Your task to perform on an android device: Go to Amazon Image 0: 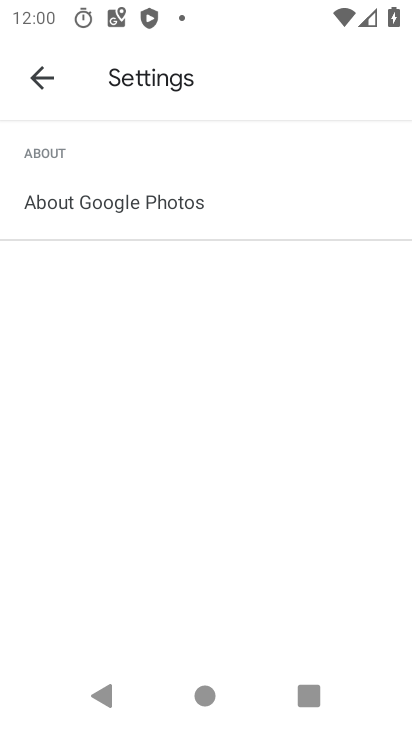
Step 0: press home button
Your task to perform on an android device: Go to Amazon Image 1: 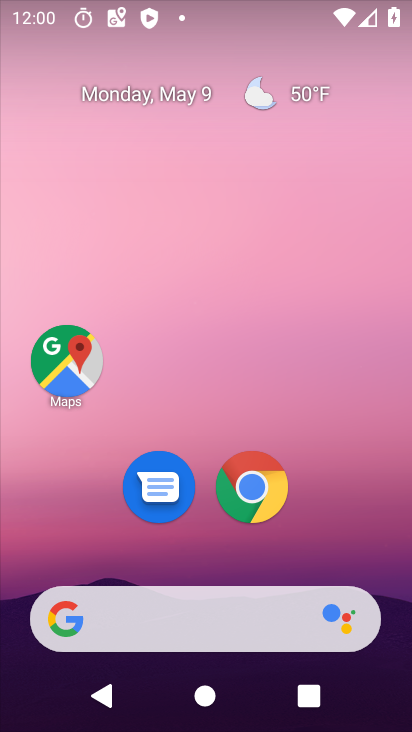
Step 1: click (278, 478)
Your task to perform on an android device: Go to Amazon Image 2: 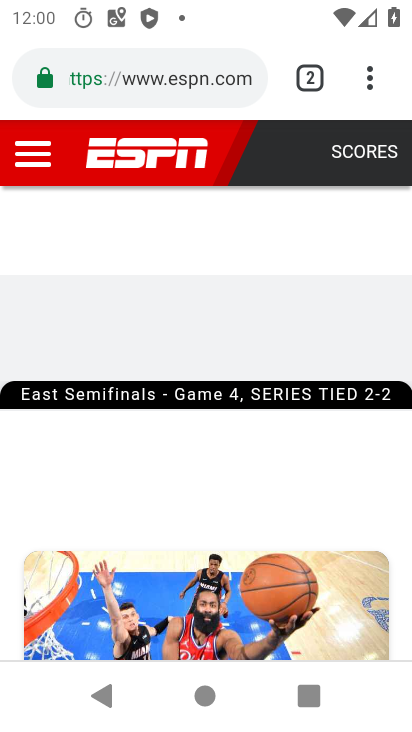
Step 2: click (159, 82)
Your task to perform on an android device: Go to Amazon Image 3: 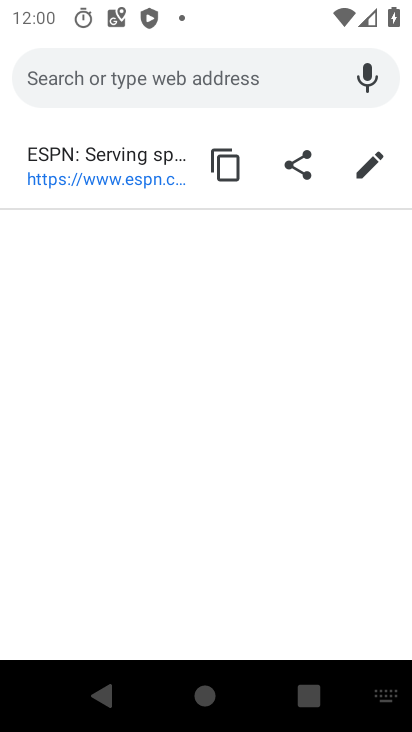
Step 3: click (193, 82)
Your task to perform on an android device: Go to Amazon Image 4: 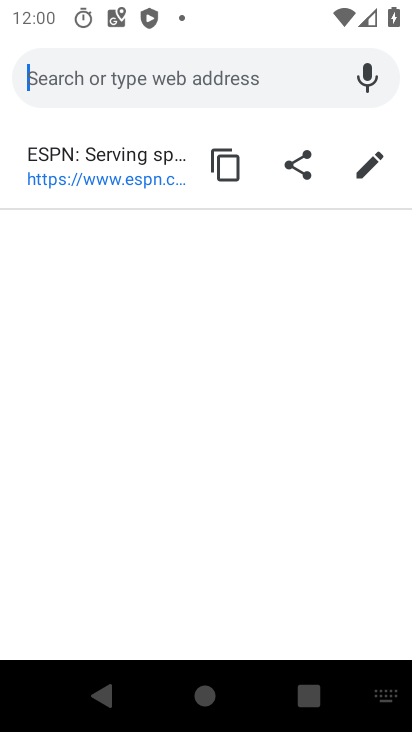
Step 4: type "Amazon"
Your task to perform on an android device: Go to Amazon Image 5: 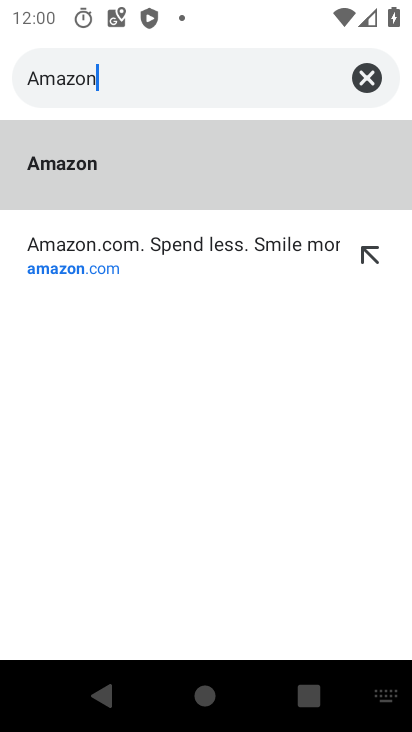
Step 5: click (41, 166)
Your task to perform on an android device: Go to Amazon Image 6: 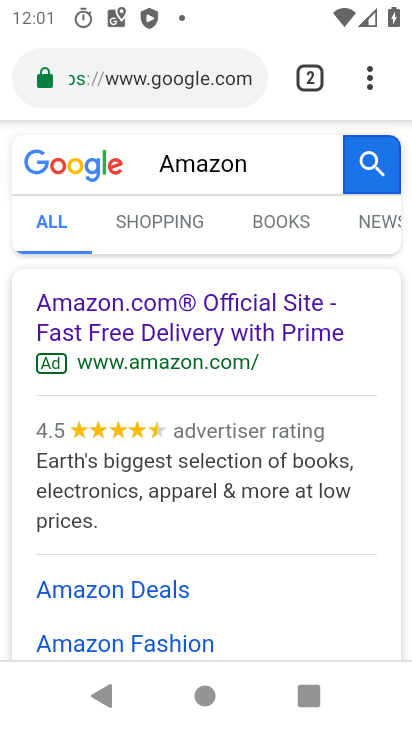
Step 6: click (101, 345)
Your task to perform on an android device: Go to Amazon Image 7: 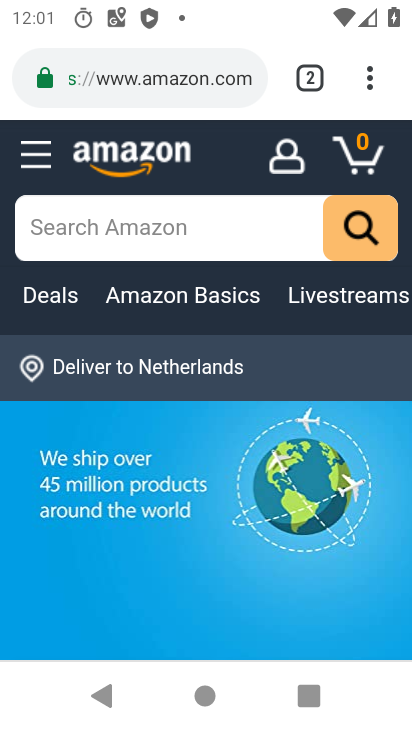
Step 7: task complete